Your task to perform on an android device: add a label to a message in the gmail app Image 0: 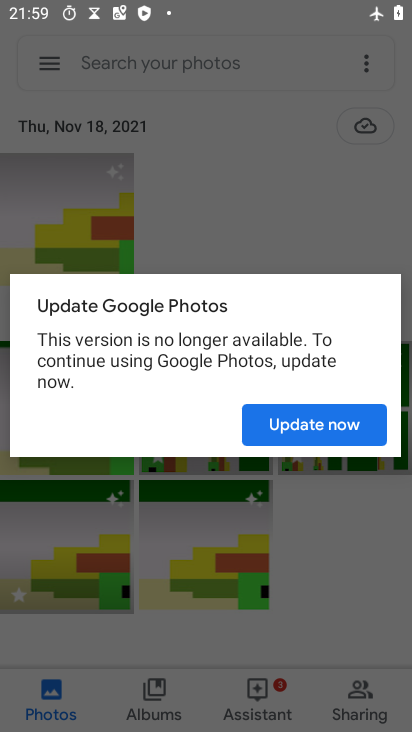
Step 0: press home button
Your task to perform on an android device: add a label to a message in the gmail app Image 1: 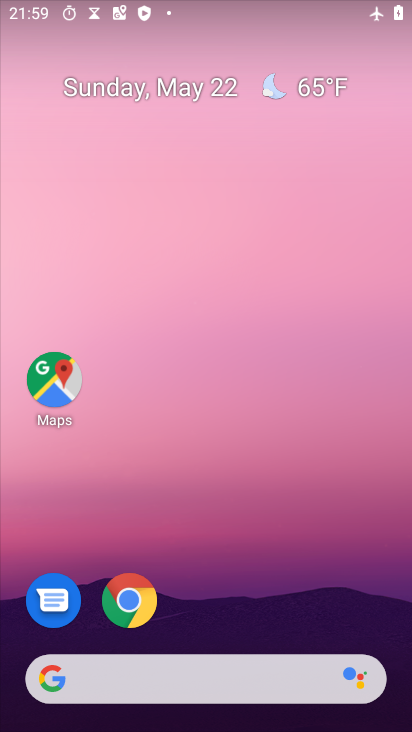
Step 1: drag from (197, 622) to (151, 373)
Your task to perform on an android device: add a label to a message in the gmail app Image 2: 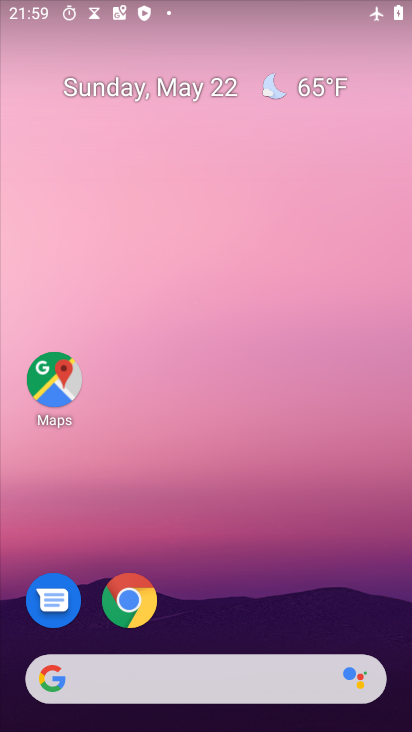
Step 2: drag from (216, 606) to (226, 202)
Your task to perform on an android device: add a label to a message in the gmail app Image 3: 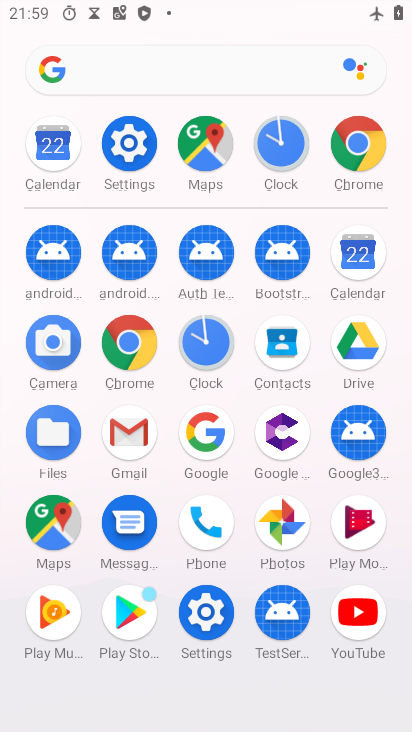
Step 3: click (138, 448)
Your task to perform on an android device: add a label to a message in the gmail app Image 4: 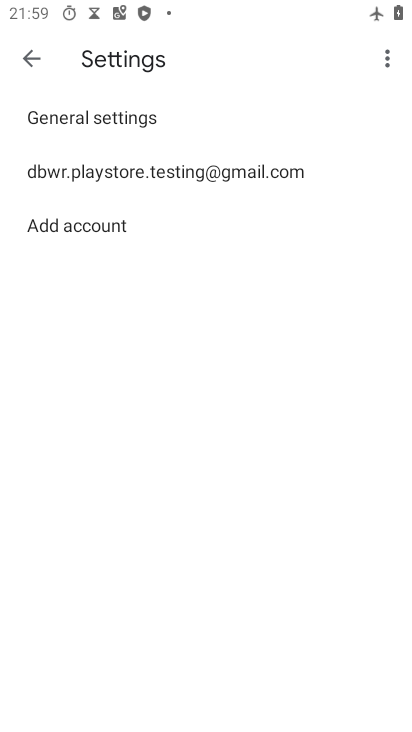
Step 4: click (37, 66)
Your task to perform on an android device: add a label to a message in the gmail app Image 5: 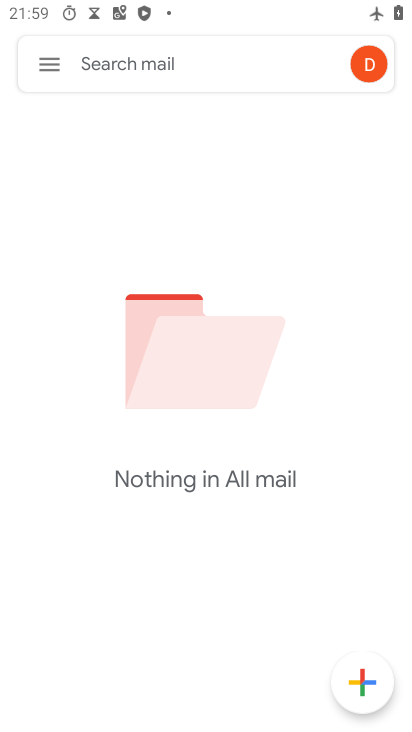
Step 5: task complete